Your task to perform on an android device: Search for usb-c to usb-a on newegg.com, select the first entry, and add it to the cart. Image 0: 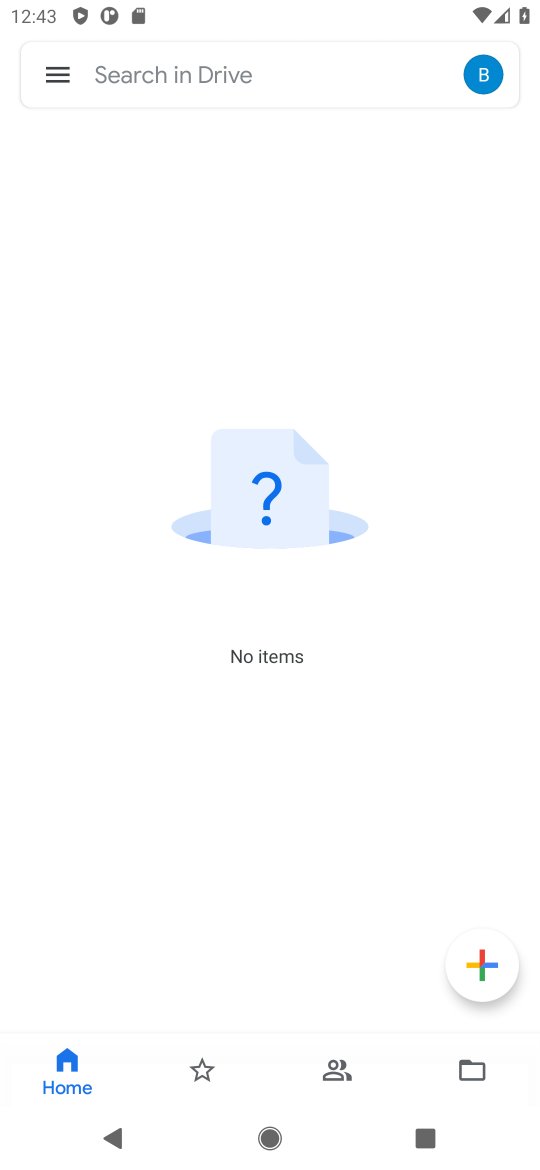
Step 0: press home button
Your task to perform on an android device: Search for usb-c to usb-a on newegg.com, select the first entry, and add it to the cart. Image 1: 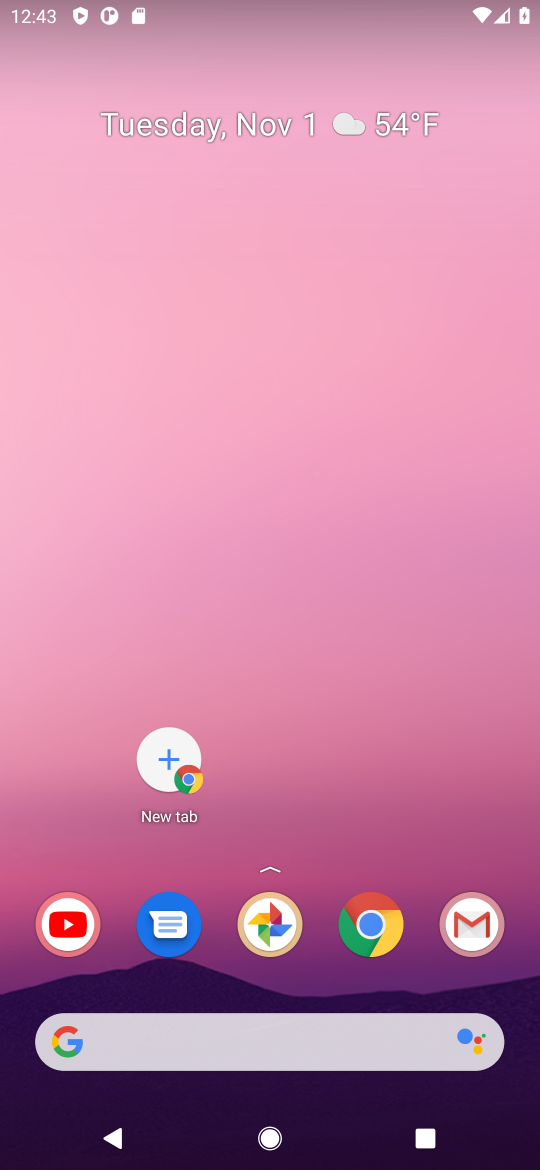
Step 1: click (372, 921)
Your task to perform on an android device: Search for usb-c to usb-a on newegg.com, select the first entry, and add it to the cart. Image 2: 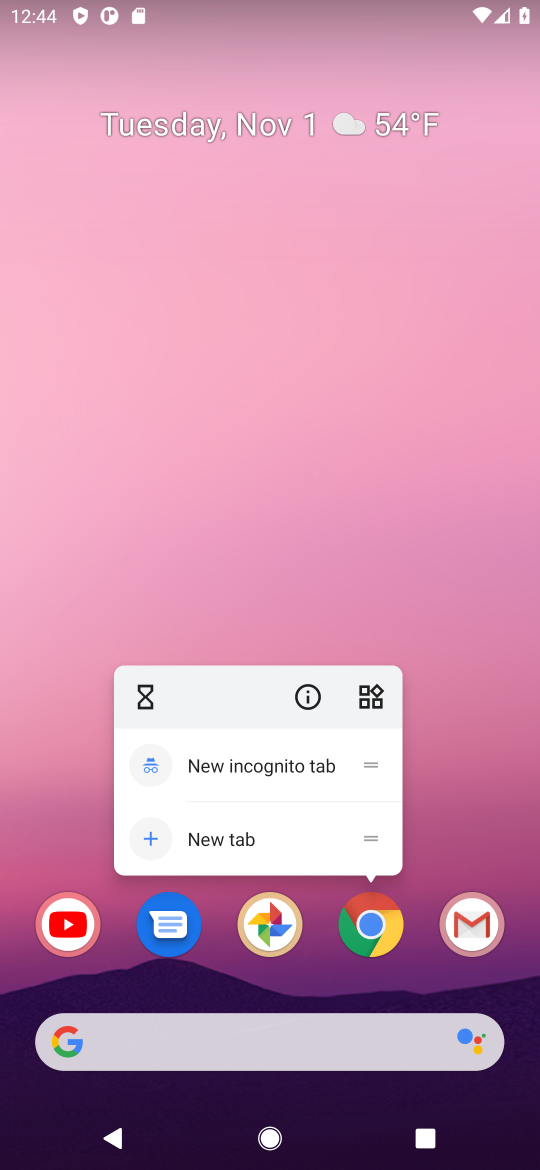
Step 2: click (382, 918)
Your task to perform on an android device: Search for usb-c to usb-a on newegg.com, select the first entry, and add it to the cart. Image 3: 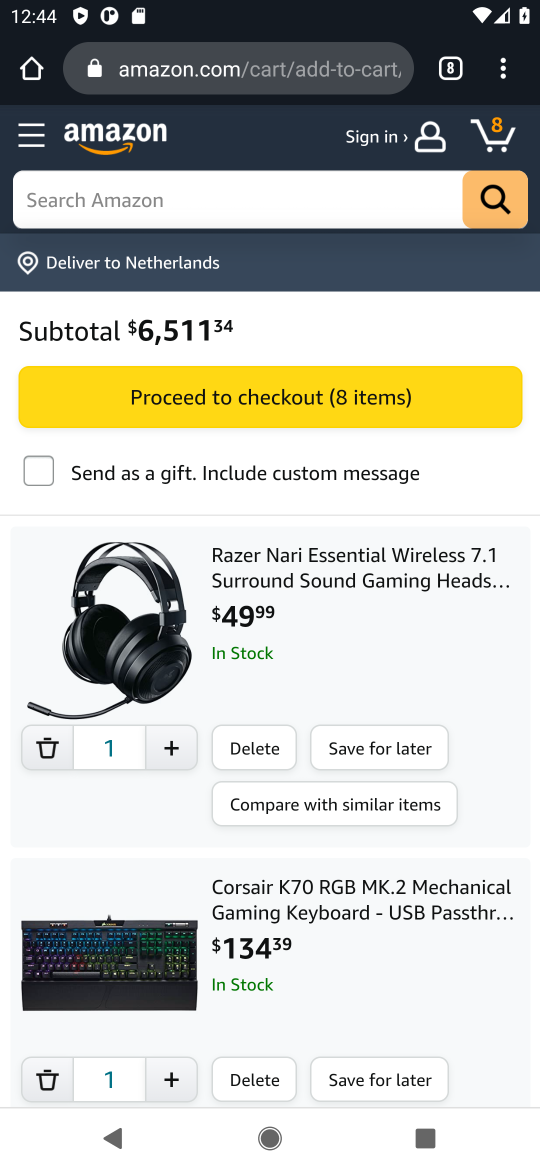
Step 3: click (176, 63)
Your task to perform on an android device: Search for usb-c to usb-a on newegg.com, select the first entry, and add it to the cart. Image 4: 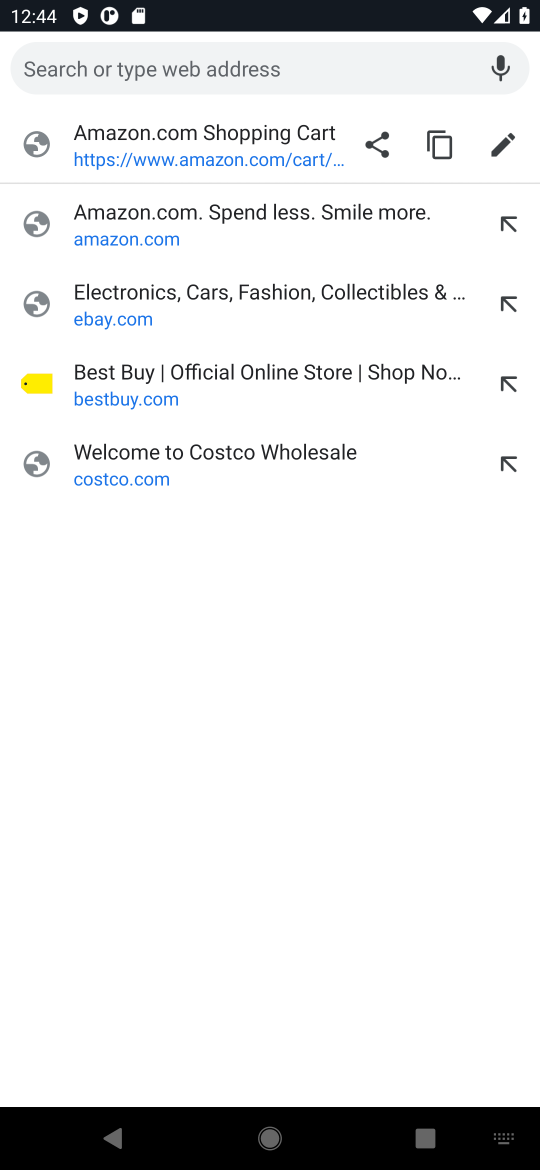
Step 4: type "newegg.com"
Your task to perform on an android device: Search for usb-c to usb-a on newegg.com, select the first entry, and add it to the cart. Image 5: 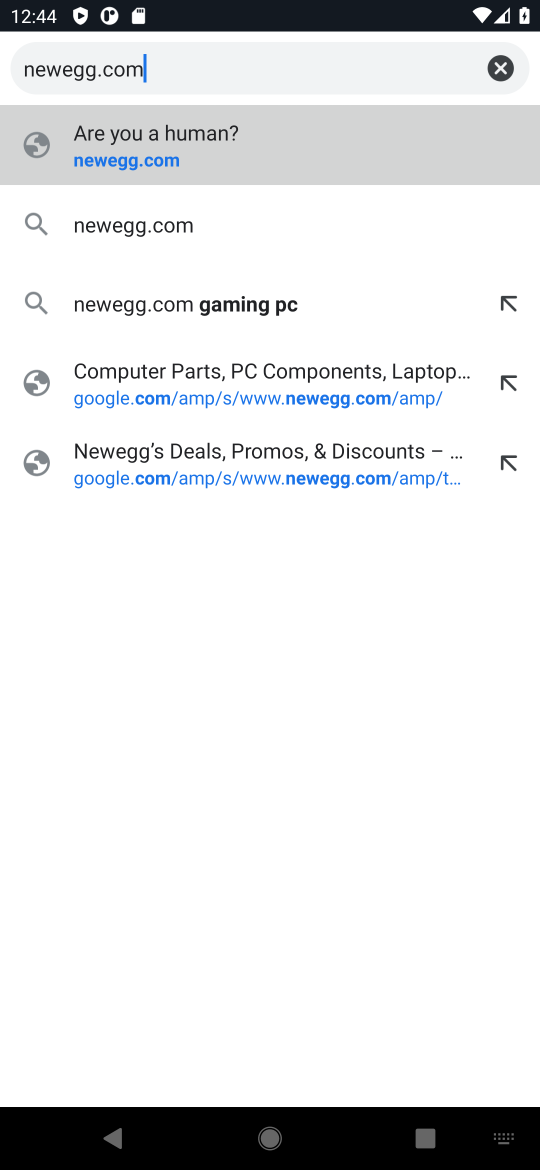
Step 5: click (162, 222)
Your task to perform on an android device: Search for usb-c to usb-a on newegg.com, select the first entry, and add it to the cart. Image 6: 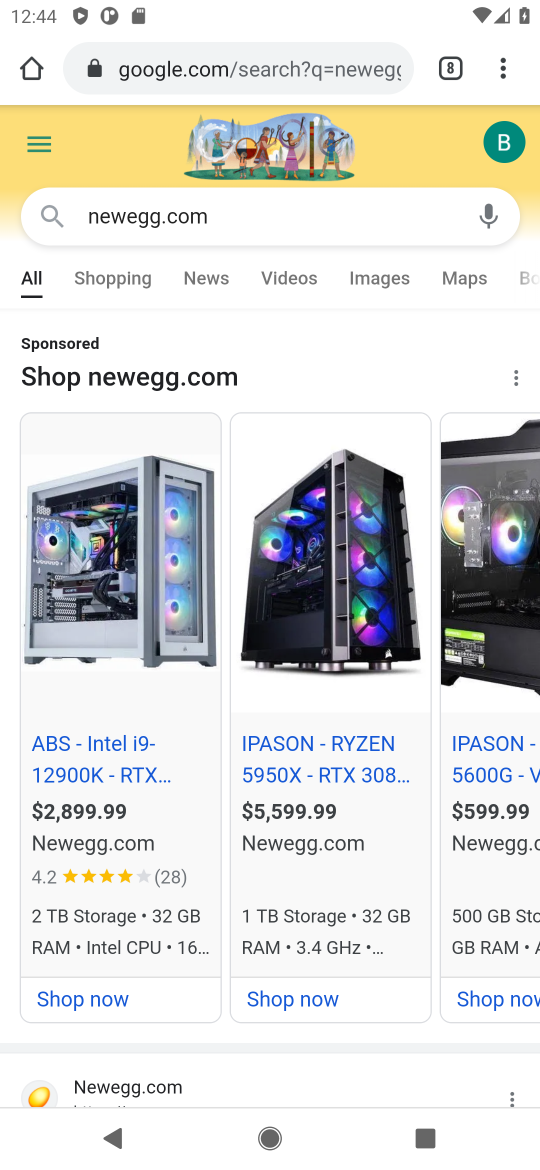
Step 6: drag from (155, 986) to (301, 303)
Your task to perform on an android device: Search for usb-c to usb-a on newegg.com, select the first entry, and add it to the cart. Image 7: 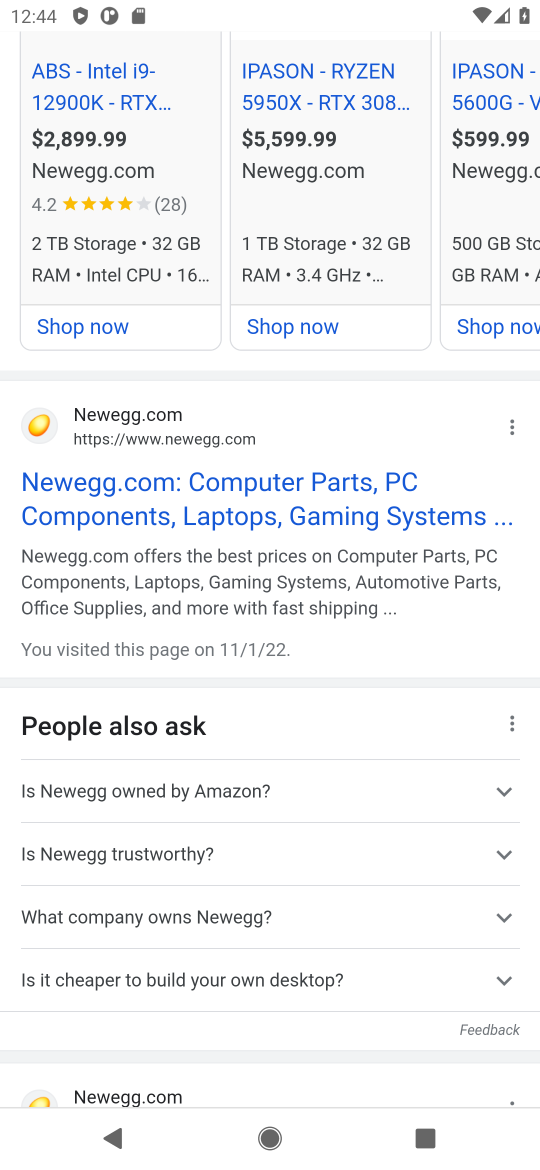
Step 7: click (144, 479)
Your task to perform on an android device: Search for usb-c to usb-a on newegg.com, select the first entry, and add it to the cart. Image 8: 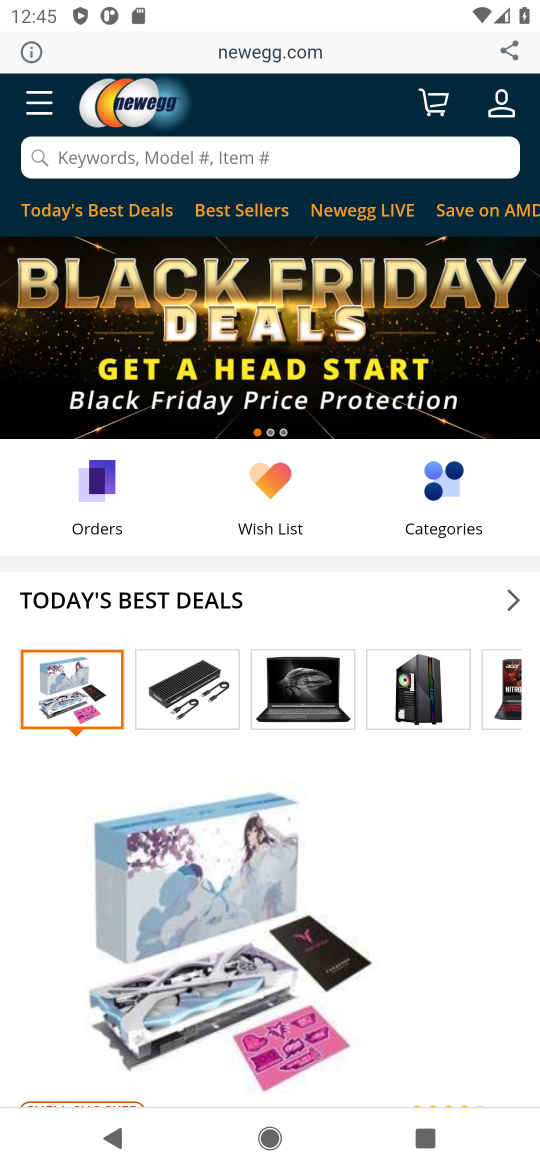
Step 8: click (244, 147)
Your task to perform on an android device: Search for usb-c to usb-a on newegg.com, select the first entry, and add it to the cart. Image 9: 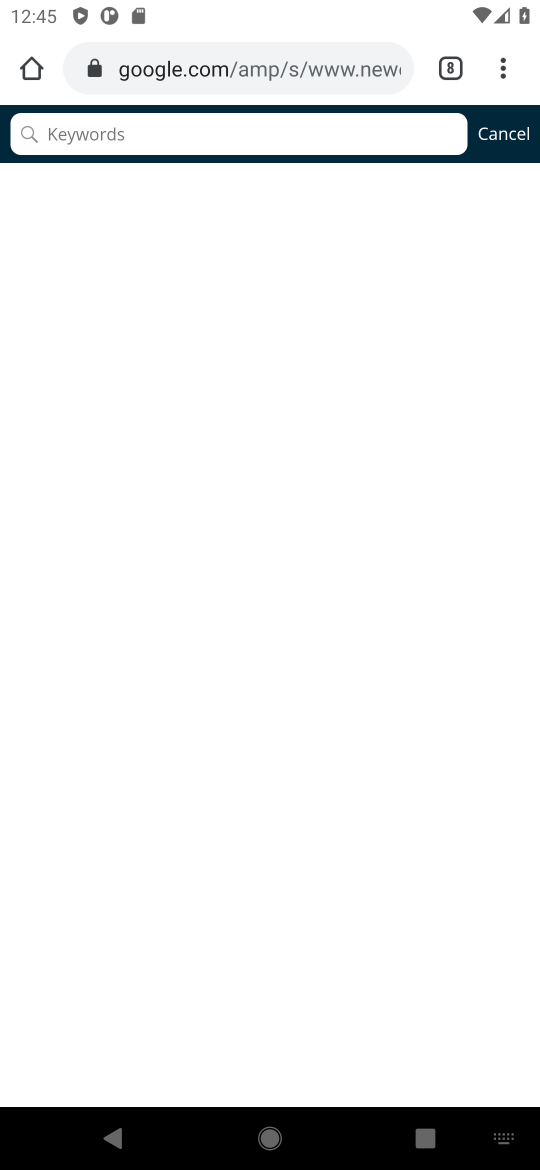
Step 9: type "usb -c to usb -a"
Your task to perform on an android device: Search for usb-c to usb-a on newegg.com, select the first entry, and add it to the cart. Image 10: 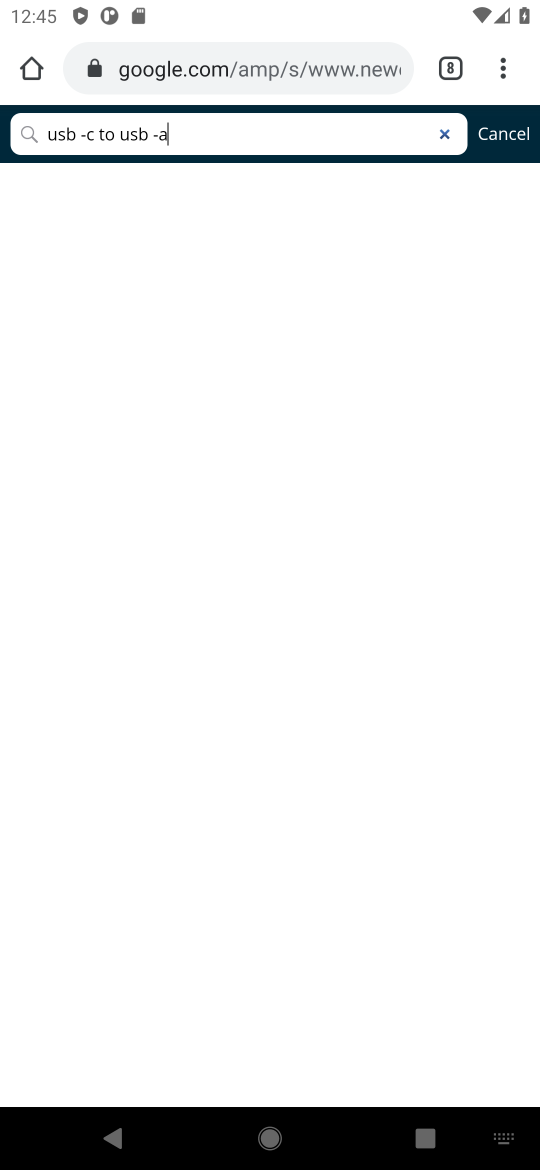
Step 10: type ""
Your task to perform on an android device: Search for usb-c to usb-a on newegg.com, select the first entry, and add it to the cart. Image 11: 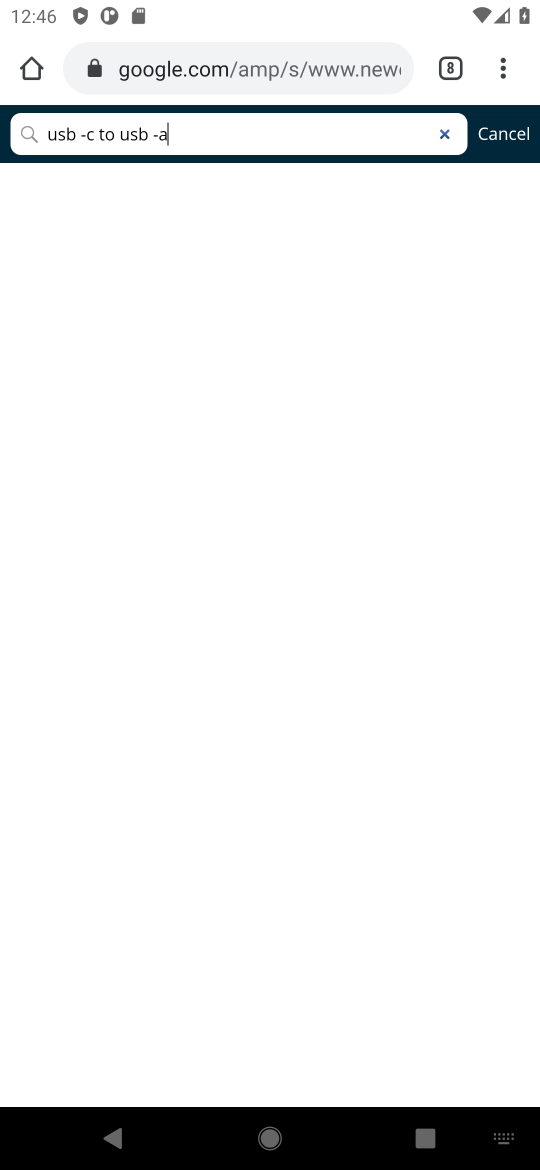
Step 11: type ""
Your task to perform on an android device: Search for usb-c to usb-a on newegg.com, select the first entry, and add it to the cart. Image 12: 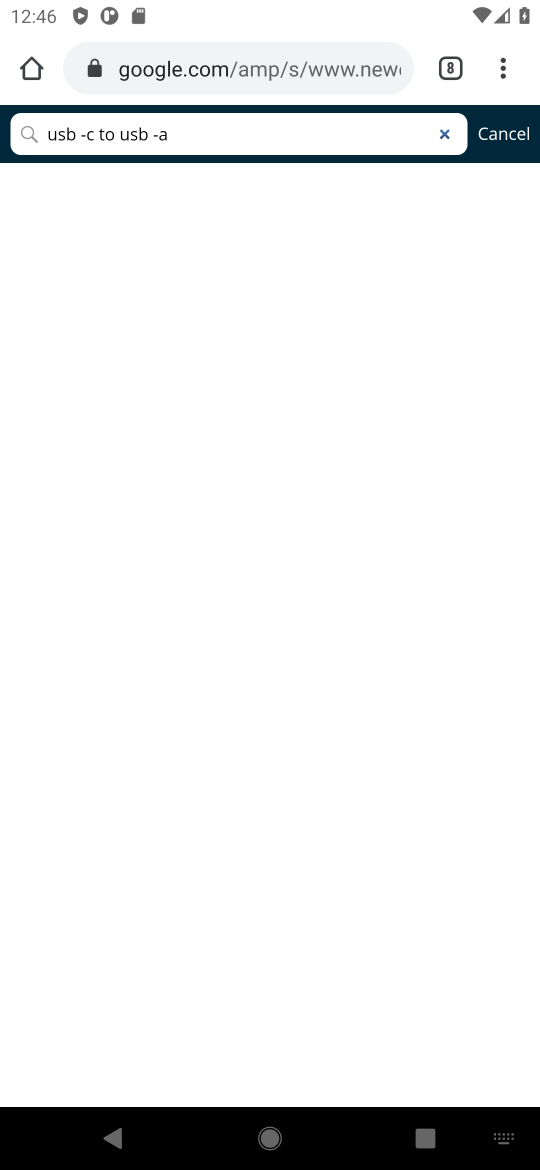
Step 12: type ""
Your task to perform on an android device: Search for usb-c to usb-a on newegg.com, select the first entry, and add it to the cart. Image 13: 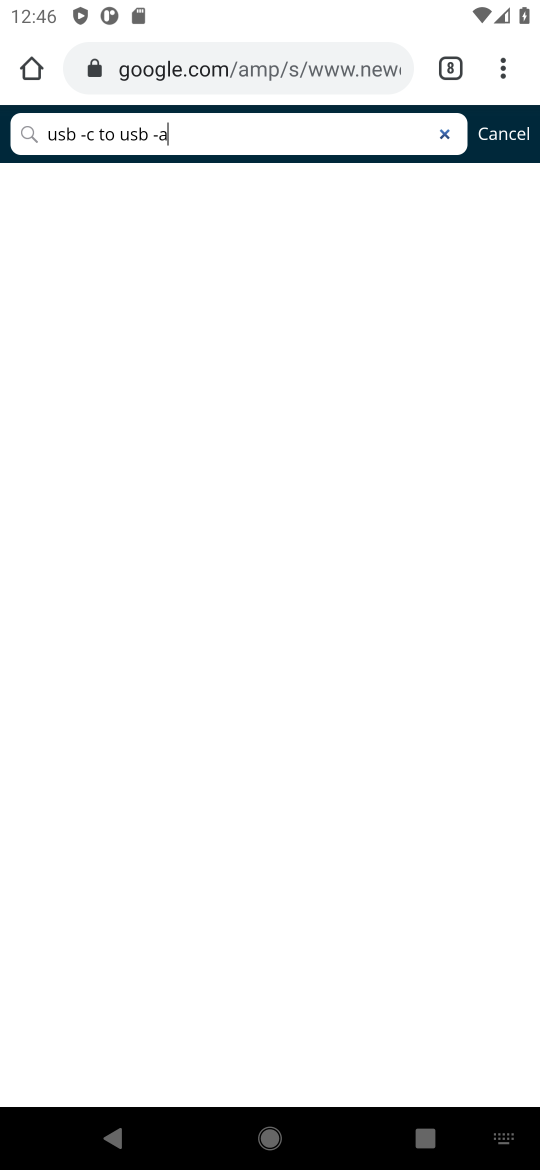
Step 13: click (443, 129)
Your task to perform on an android device: Search for usb-c to usb-a on newegg.com, select the first entry, and add it to the cart. Image 14: 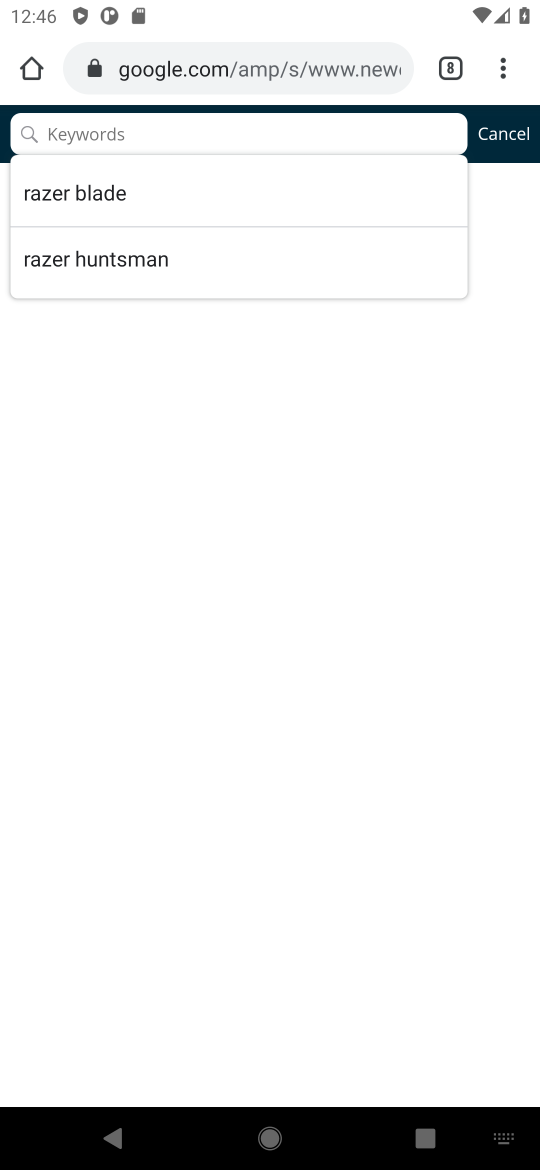
Step 14: type "usb-c to usb -a"
Your task to perform on an android device: Search for usb-c to usb-a on newegg.com, select the first entry, and add it to the cart. Image 15: 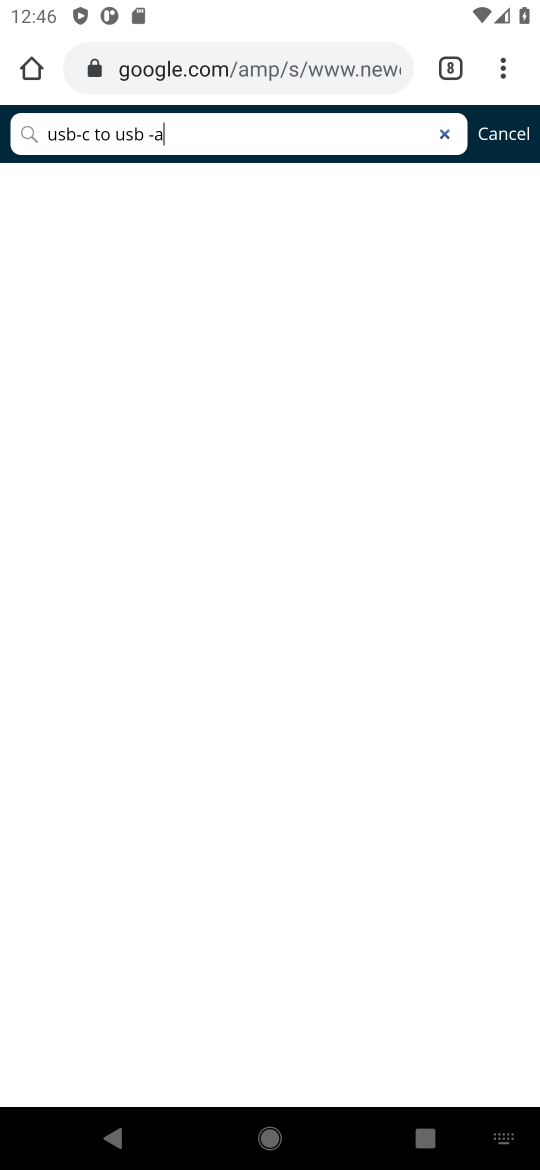
Step 15: type ""
Your task to perform on an android device: Search for usb-c to usb-a on newegg.com, select the first entry, and add it to the cart. Image 16: 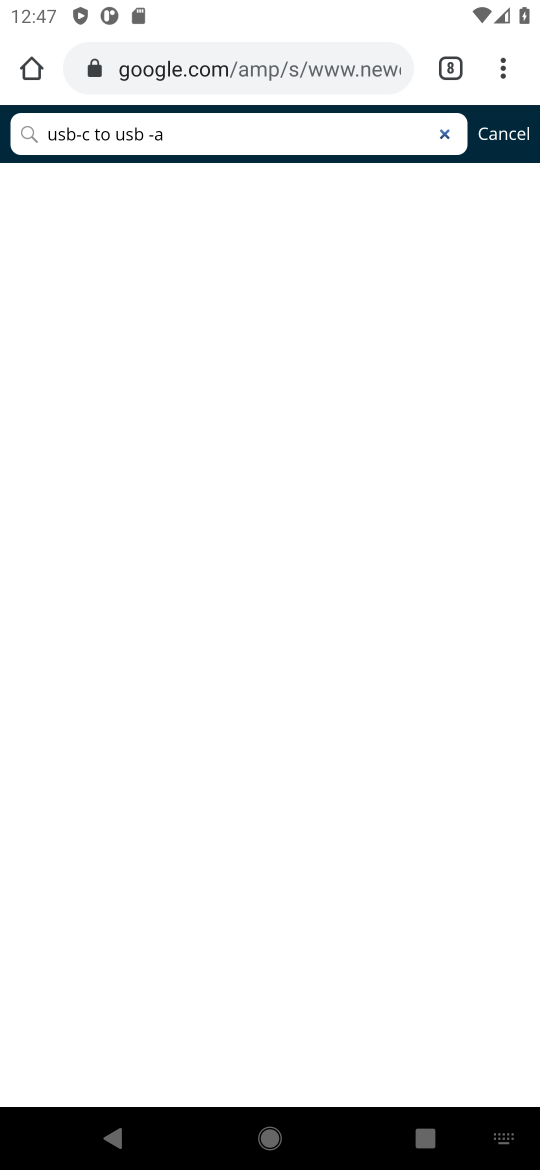
Step 16: click (222, 73)
Your task to perform on an android device: Search for usb-c to usb-a on newegg.com, select the first entry, and add it to the cart. Image 17: 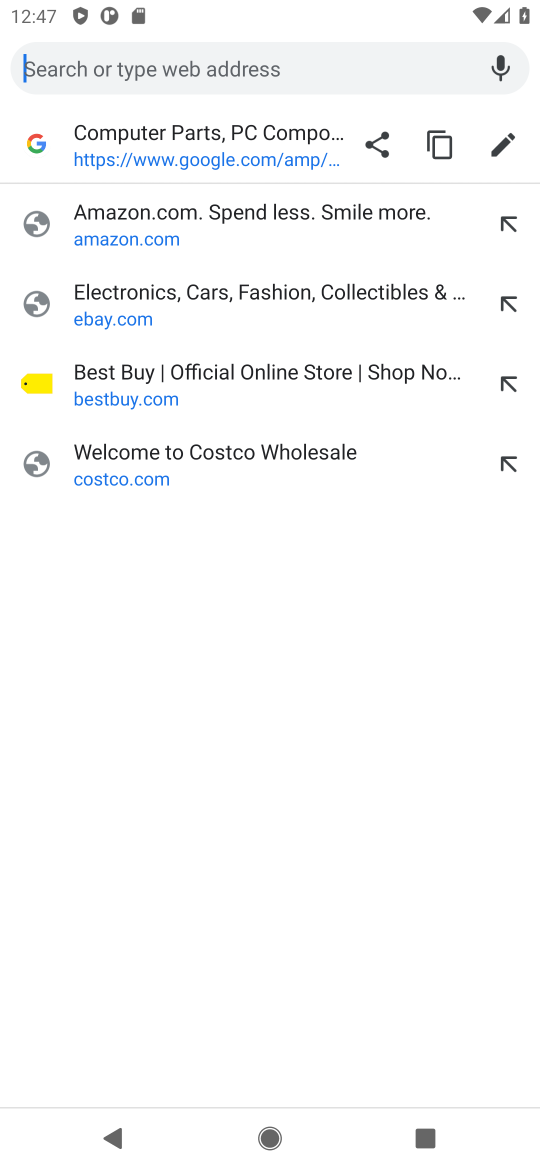
Step 17: type "newegg.com"
Your task to perform on an android device: Search for usb-c to usb-a on newegg.com, select the first entry, and add it to the cart. Image 18: 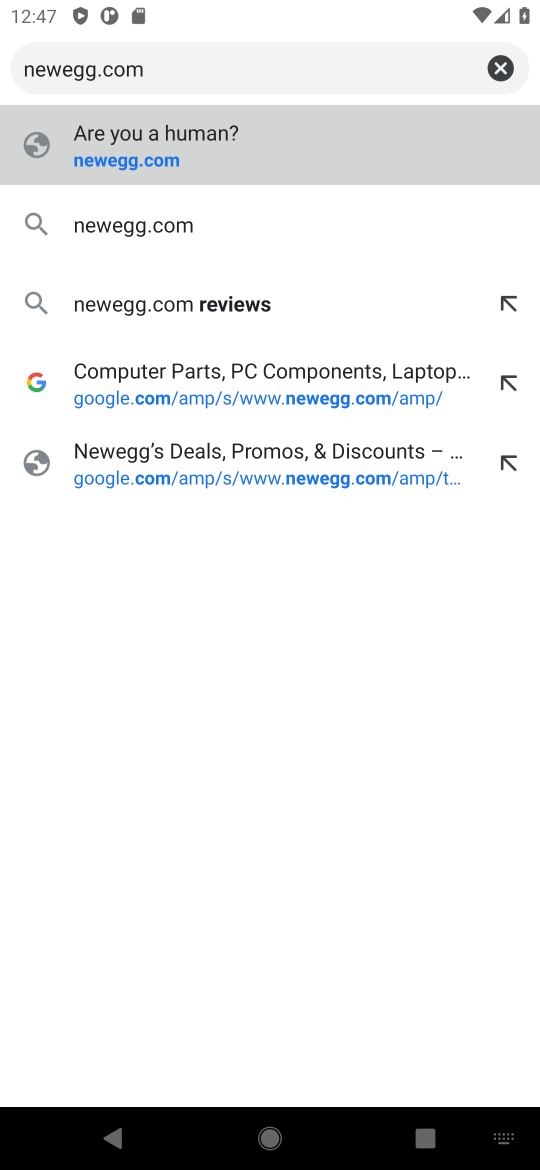
Step 18: type ""
Your task to perform on an android device: Search for usb-c to usb-a on newegg.com, select the first entry, and add it to the cart. Image 19: 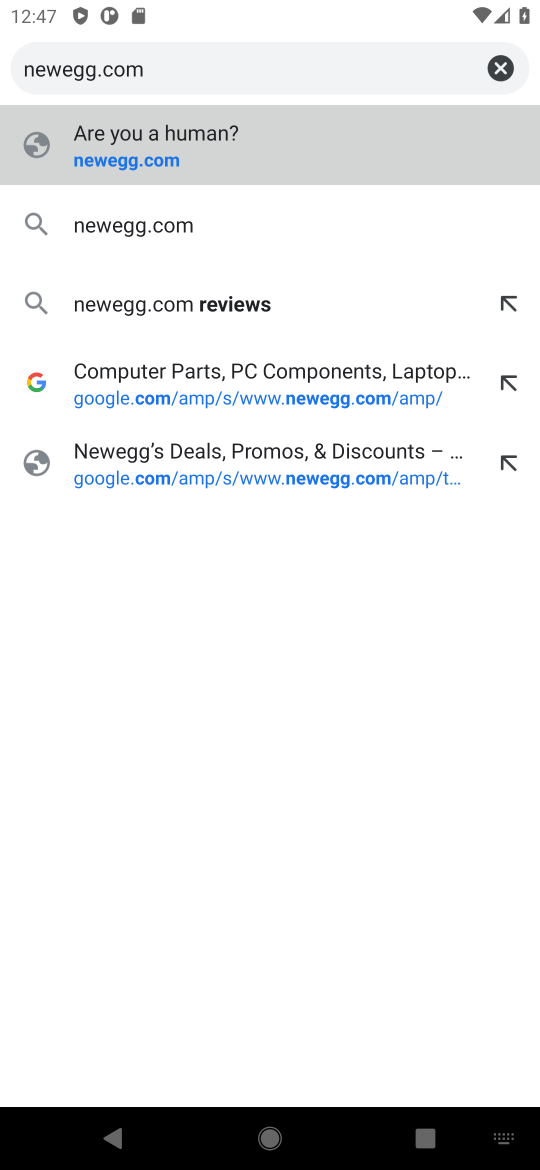
Step 19: click (178, 475)
Your task to perform on an android device: Search for usb-c to usb-a on newegg.com, select the first entry, and add it to the cart. Image 20: 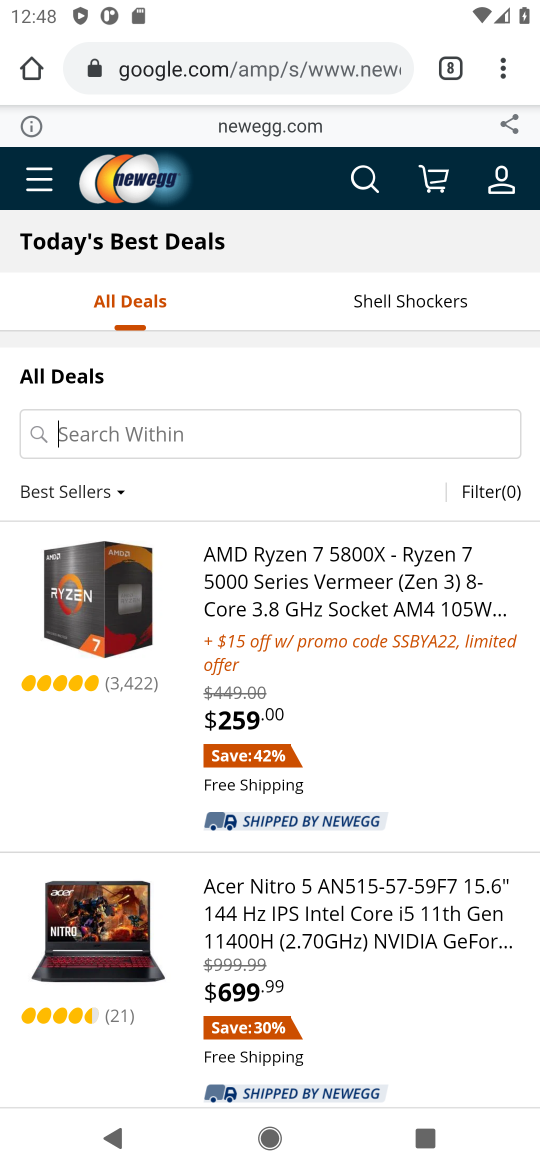
Step 20: type "usb-c to usb-a"
Your task to perform on an android device: Search for usb-c to usb-a on newegg.com, select the first entry, and add it to the cart. Image 21: 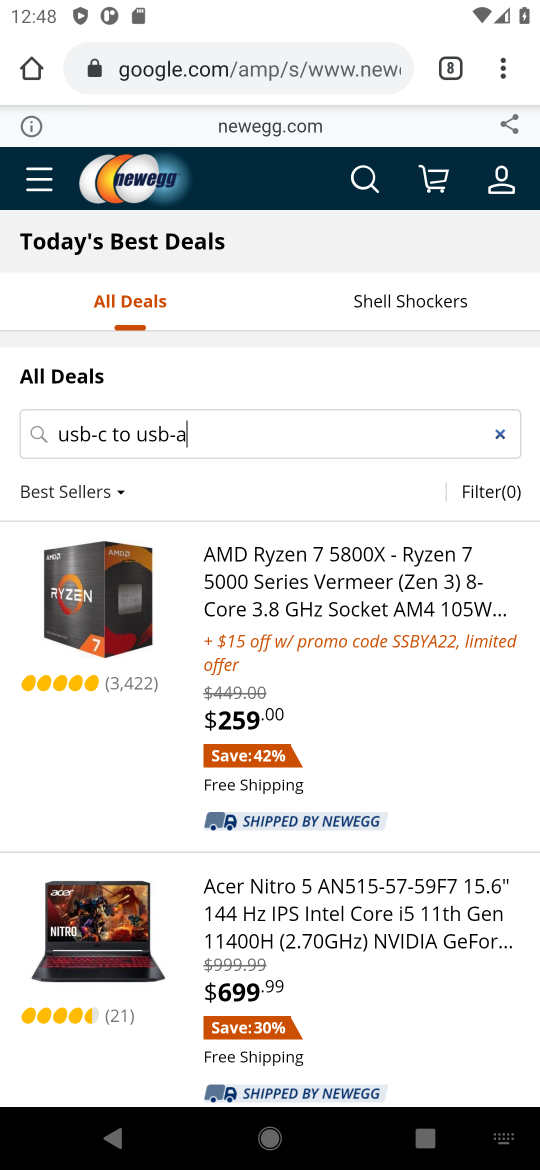
Step 21: type ""
Your task to perform on an android device: Search for usb-c to usb-a on newegg.com, select the first entry, and add it to the cart. Image 22: 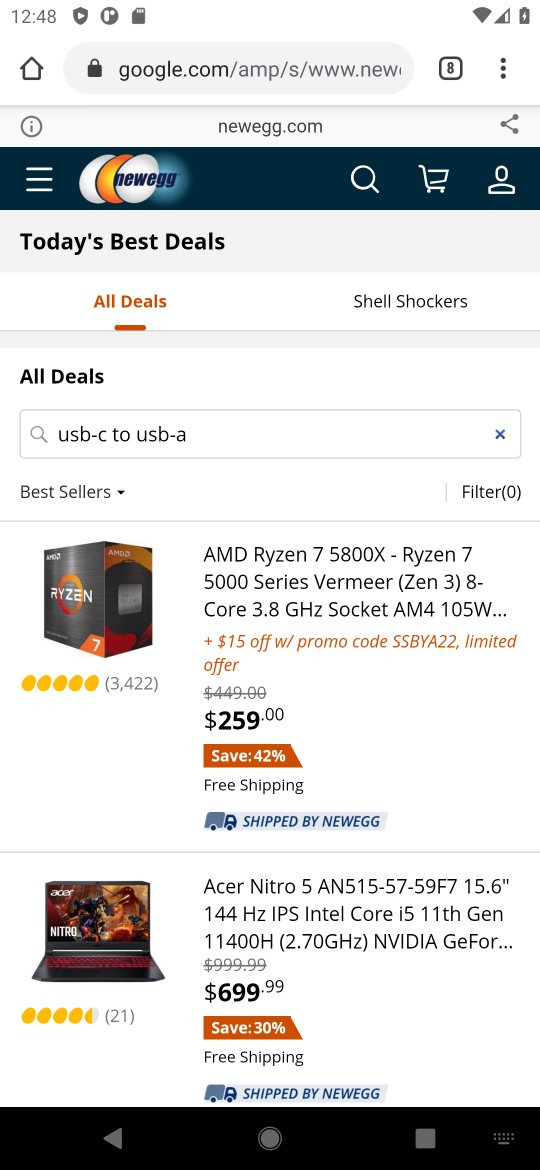
Step 22: click (230, 425)
Your task to perform on an android device: Search for usb-c to usb-a on newegg.com, select the first entry, and add it to the cart. Image 23: 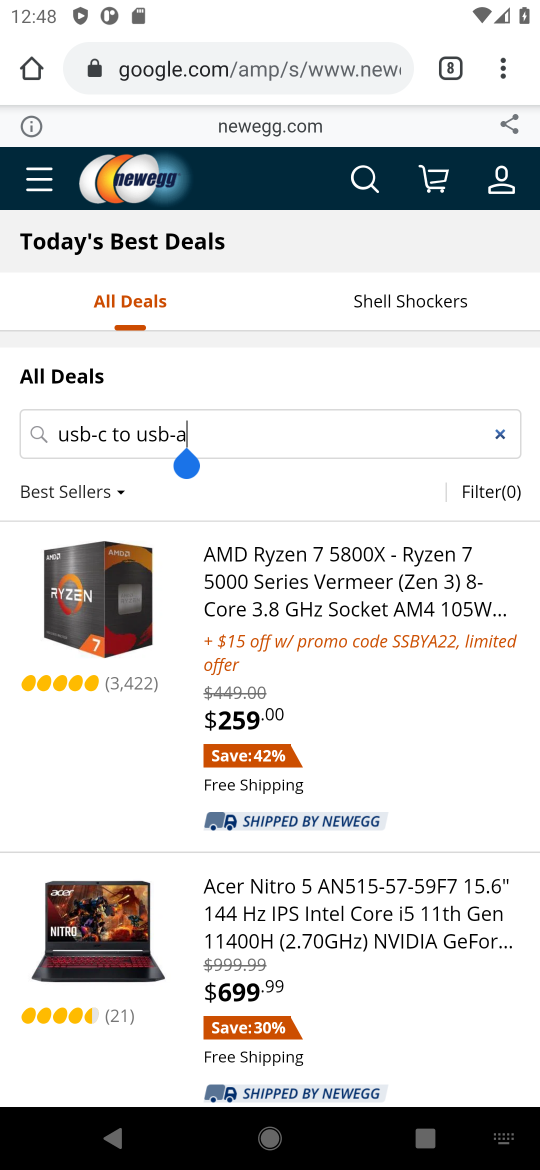
Step 23: click (371, 165)
Your task to perform on an android device: Search for usb-c to usb-a on newegg.com, select the first entry, and add it to the cart. Image 24: 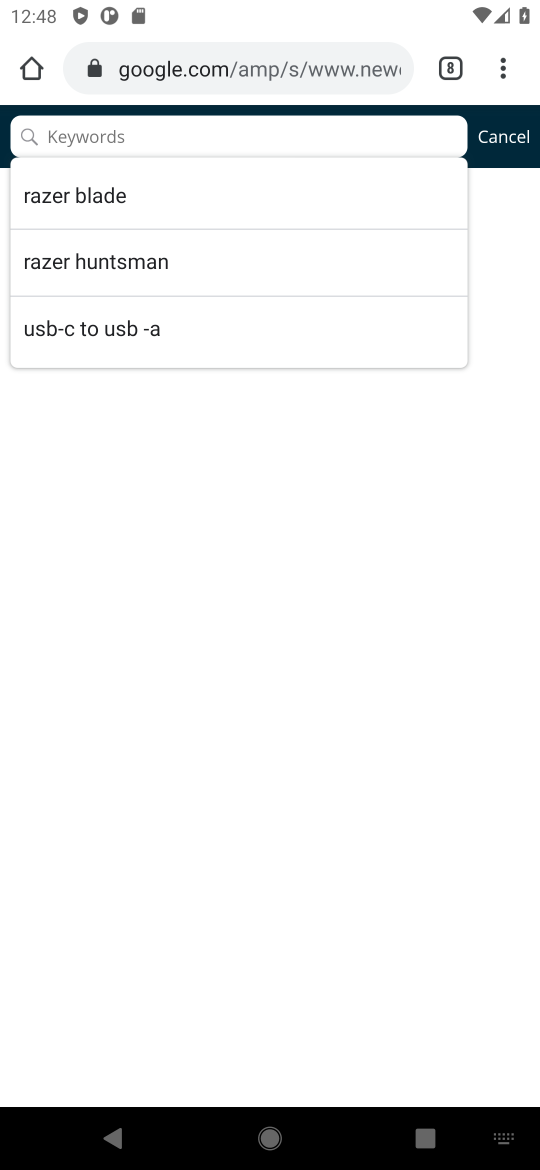
Step 24: click (111, 324)
Your task to perform on an android device: Search for usb-c to usb-a on newegg.com, select the first entry, and add it to the cart. Image 25: 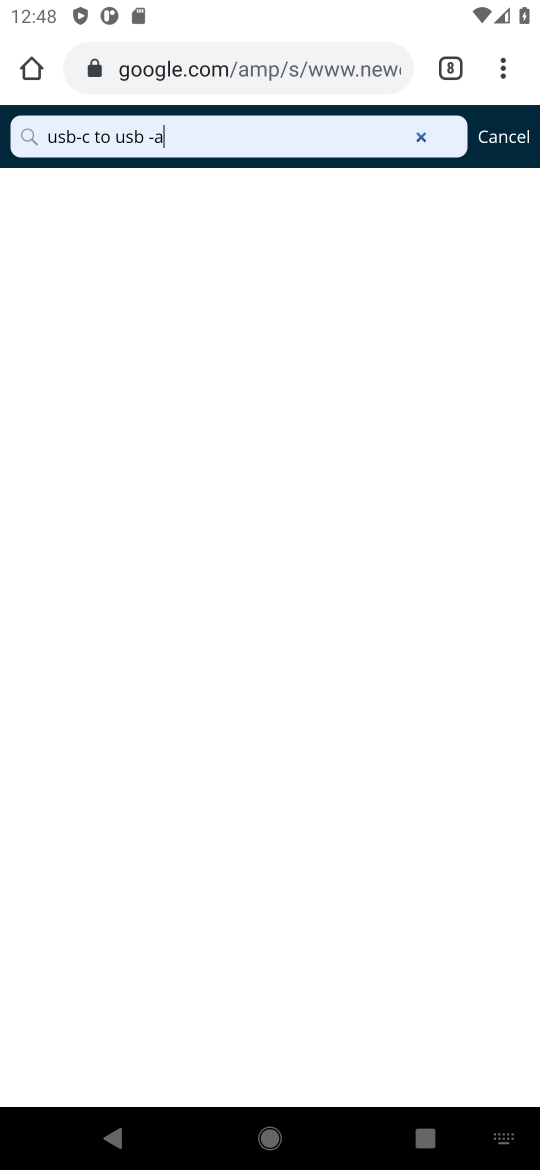
Step 25: click (423, 143)
Your task to perform on an android device: Search for usb-c to usb-a on newegg.com, select the first entry, and add it to the cart. Image 26: 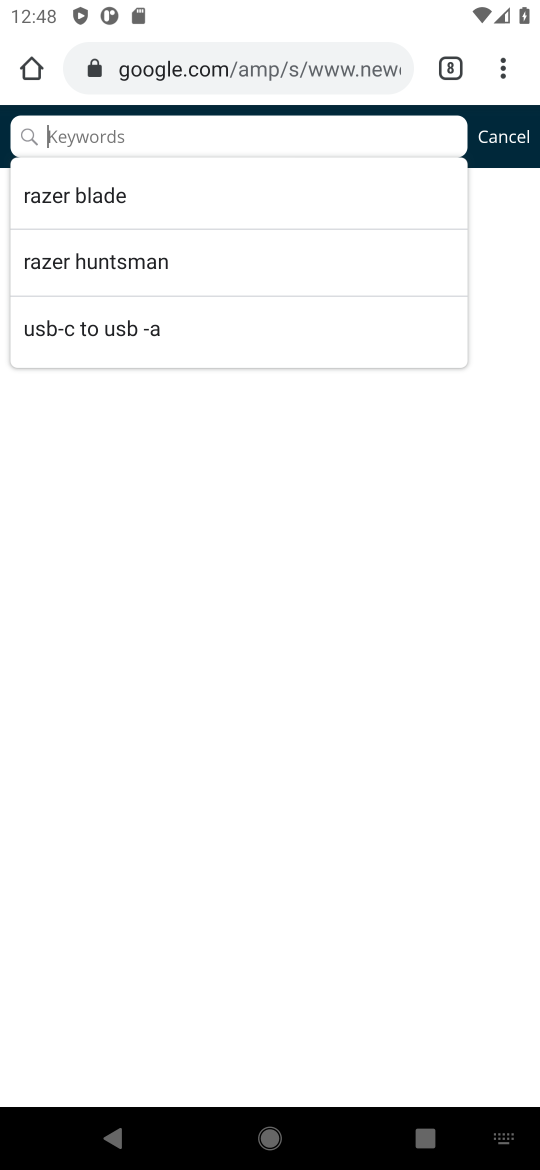
Step 26: click (184, 482)
Your task to perform on an android device: Search for usb-c to usb-a on newegg.com, select the first entry, and add it to the cart. Image 27: 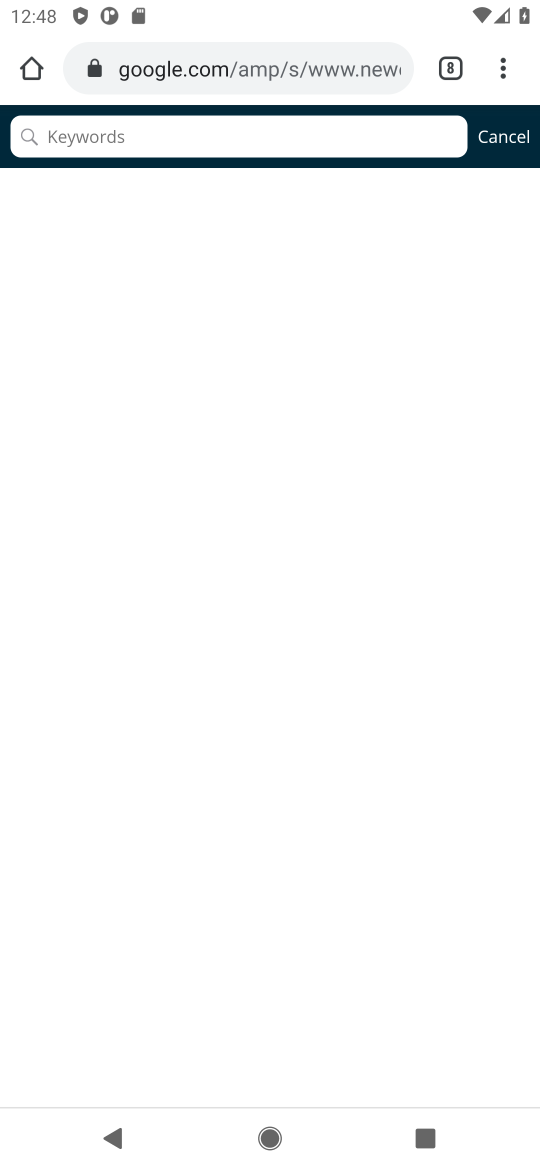
Step 27: task complete